Your task to perform on an android device: clear history in the chrome app Image 0: 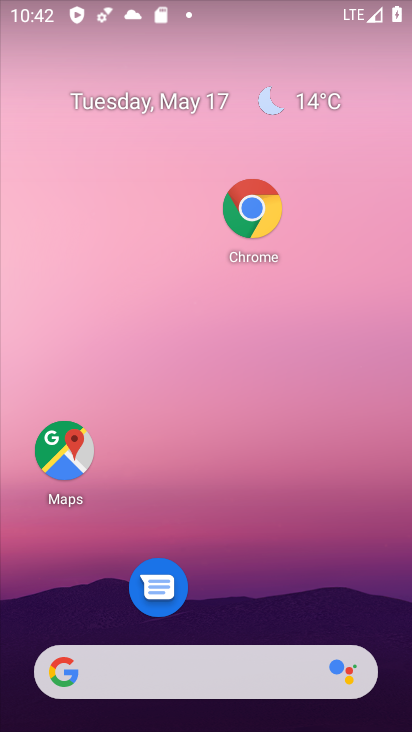
Step 0: click (249, 209)
Your task to perform on an android device: clear history in the chrome app Image 1: 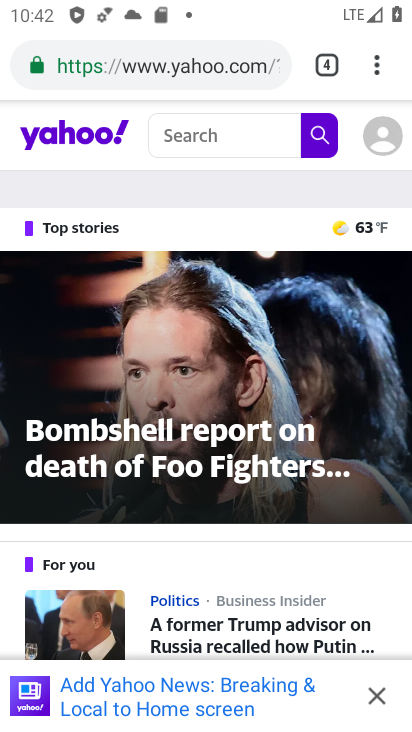
Step 1: click (378, 60)
Your task to perform on an android device: clear history in the chrome app Image 2: 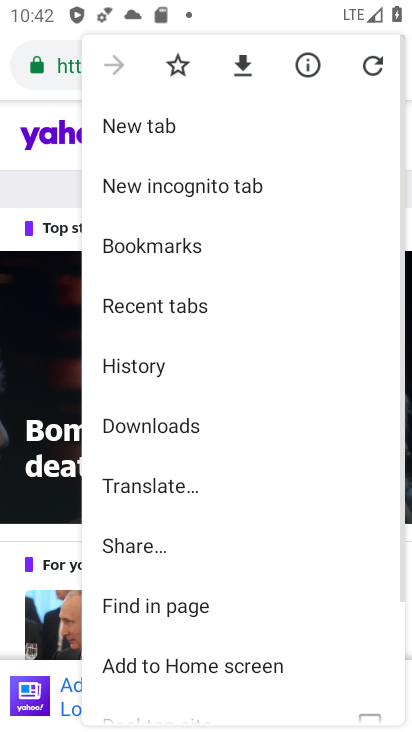
Step 2: click (138, 368)
Your task to perform on an android device: clear history in the chrome app Image 3: 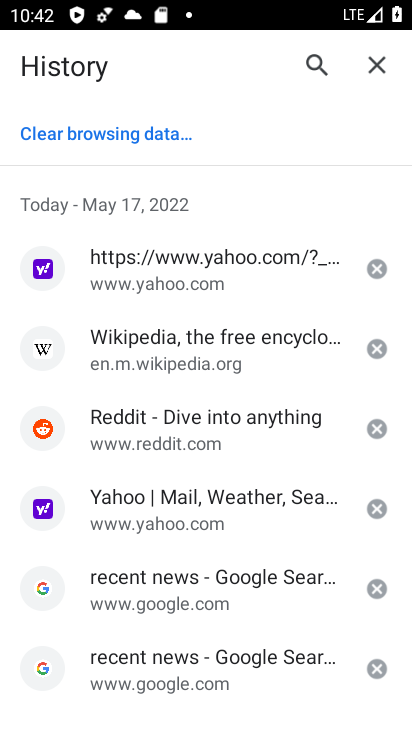
Step 3: click (116, 121)
Your task to perform on an android device: clear history in the chrome app Image 4: 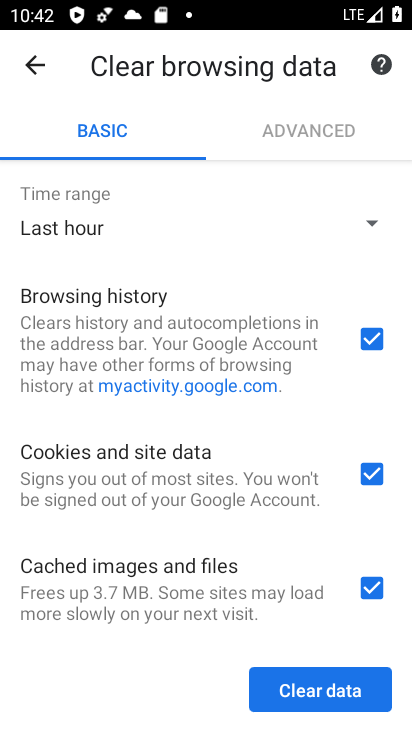
Step 4: click (360, 228)
Your task to perform on an android device: clear history in the chrome app Image 5: 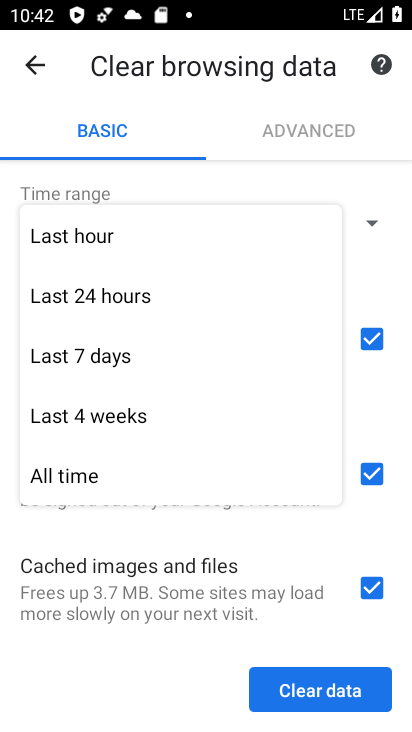
Step 5: click (143, 475)
Your task to perform on an android device: clear history in the chrome app Image 6: 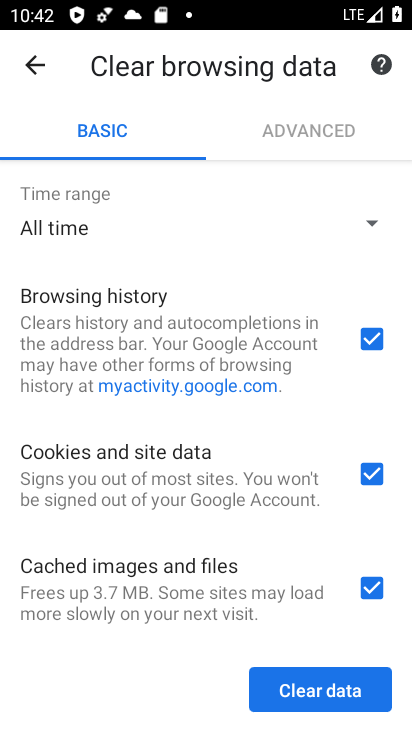
Step 6: click (335, 675)
Your task to perform on an android device: clear history in the chrome app Image 7: 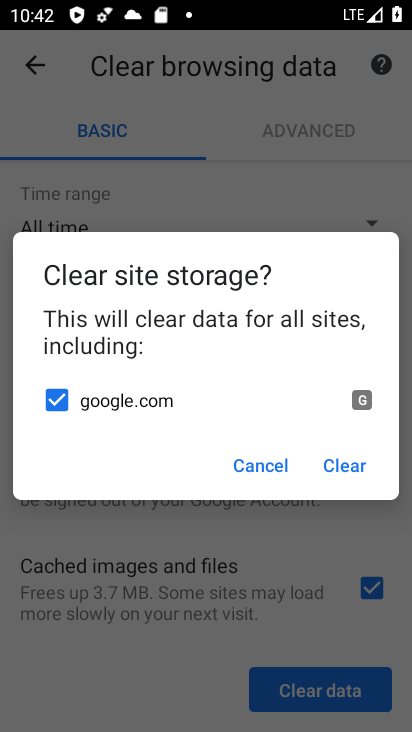
Step 7: click (343, 461)
Your task to perform on an android device: clear history in the chrome app Image 8: 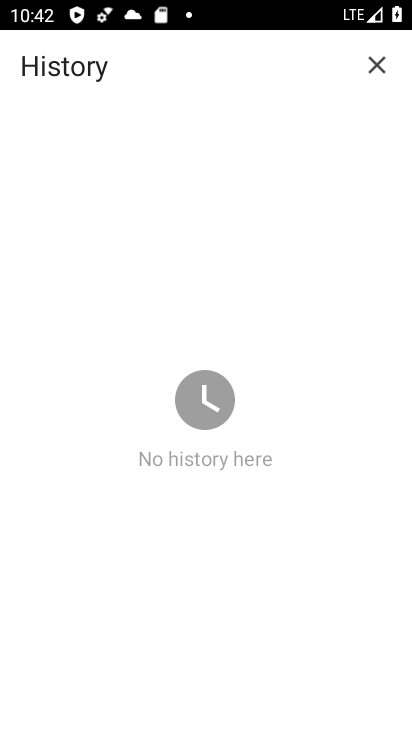
Step 8: task complete